Your task to perform on an android device: uninstall "Adobe Acrobat Reader" Image 0: 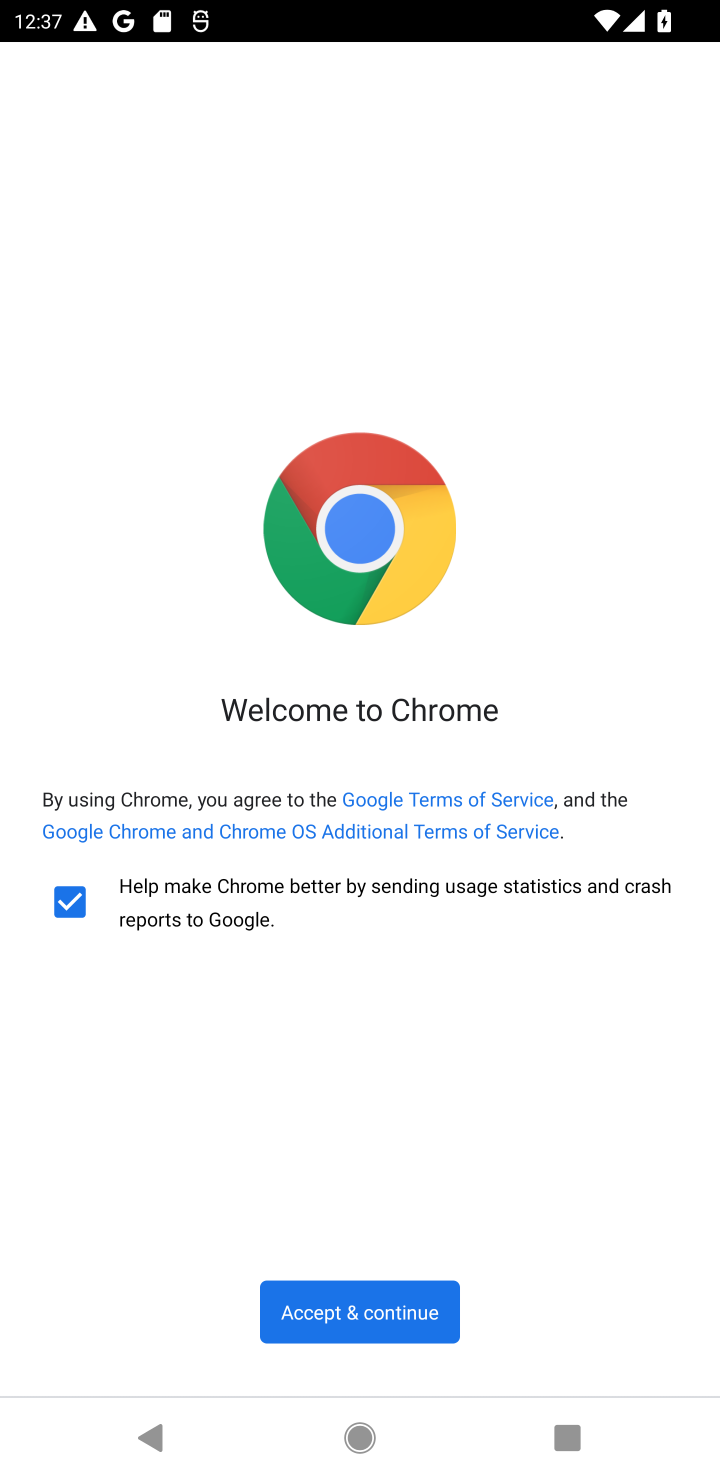
Step 0: press home button
Your task to perform on an android device: uninstall "Adobe Acrobat Reader" Image 1: 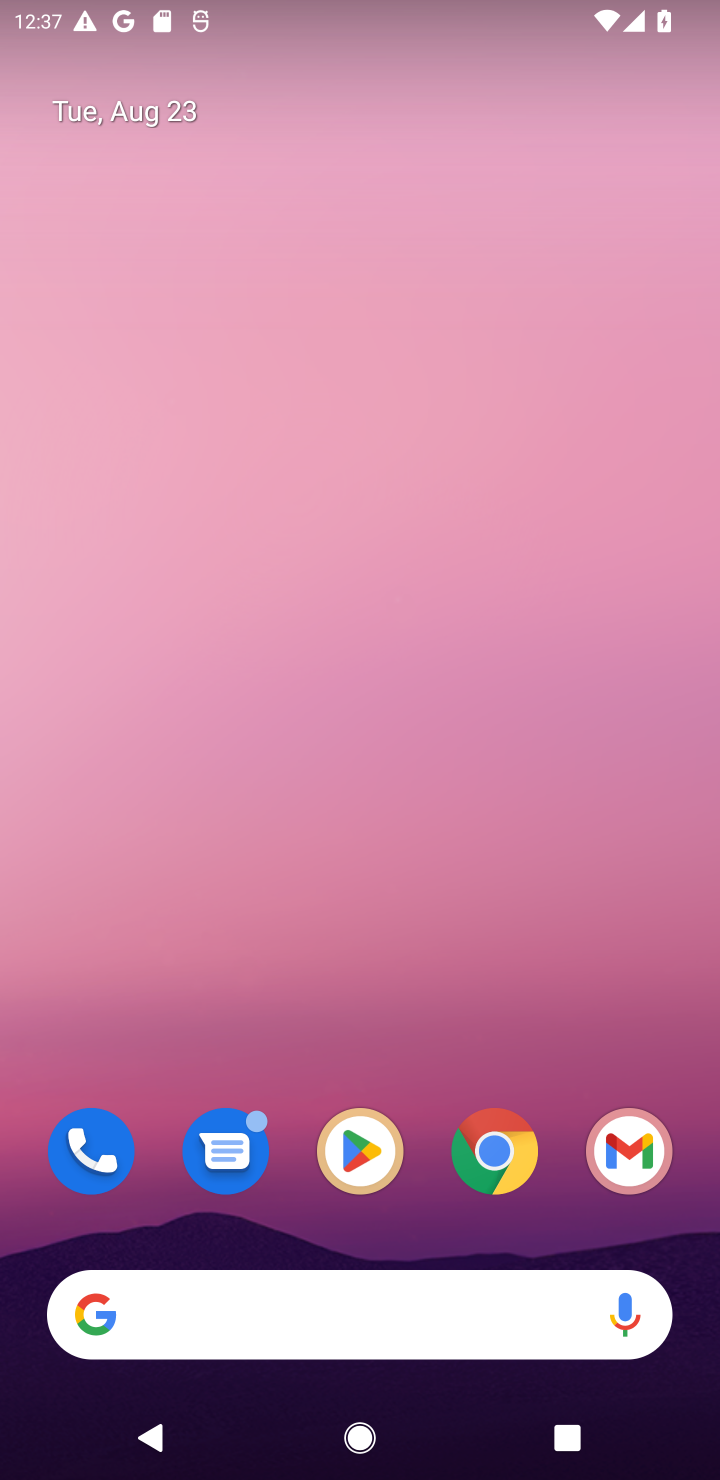
Step 1: click (323, 1137)
Your task to perform on an android device: uninstall "Adobe Acrobat Reader" Image 2: 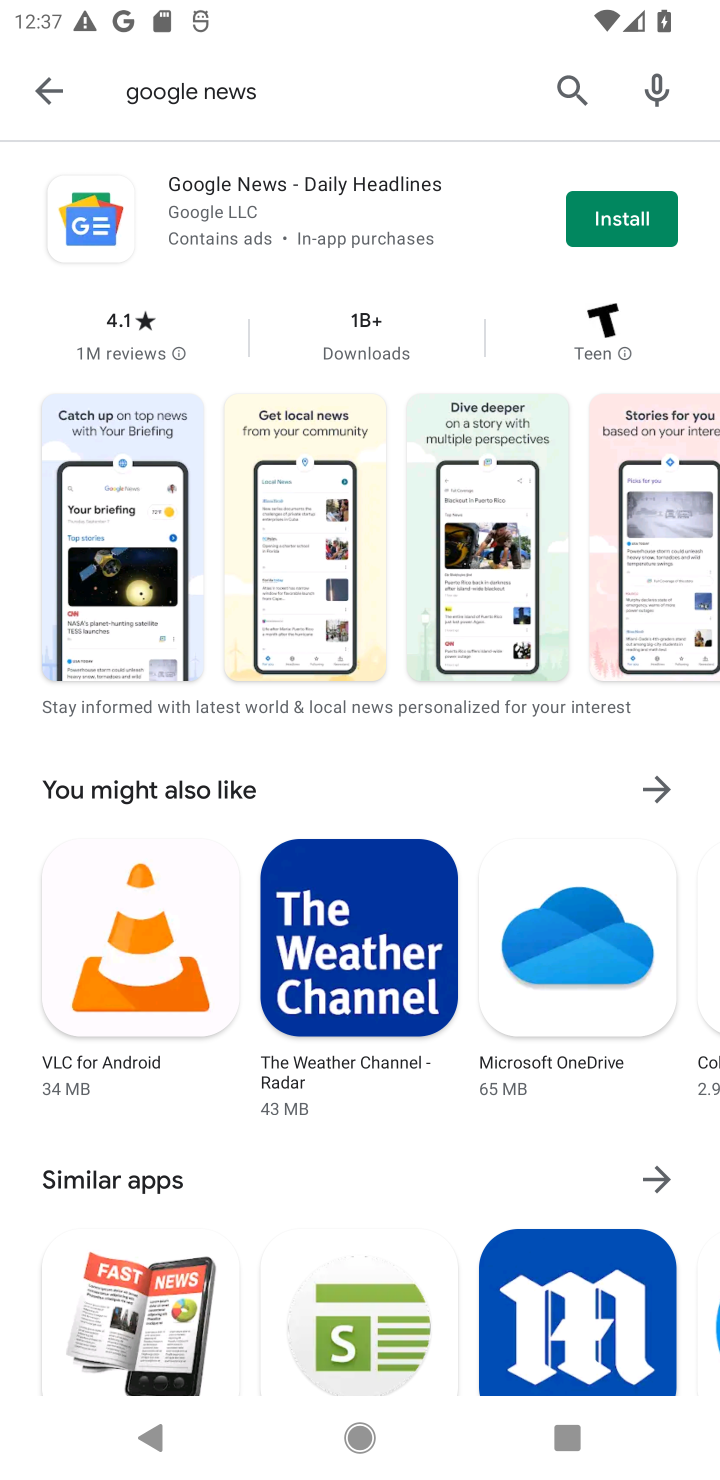
Step 2: click (574, 88)
Your task to perform on an android device: uninstall "Adobe Acrobat Reader" Image 3: 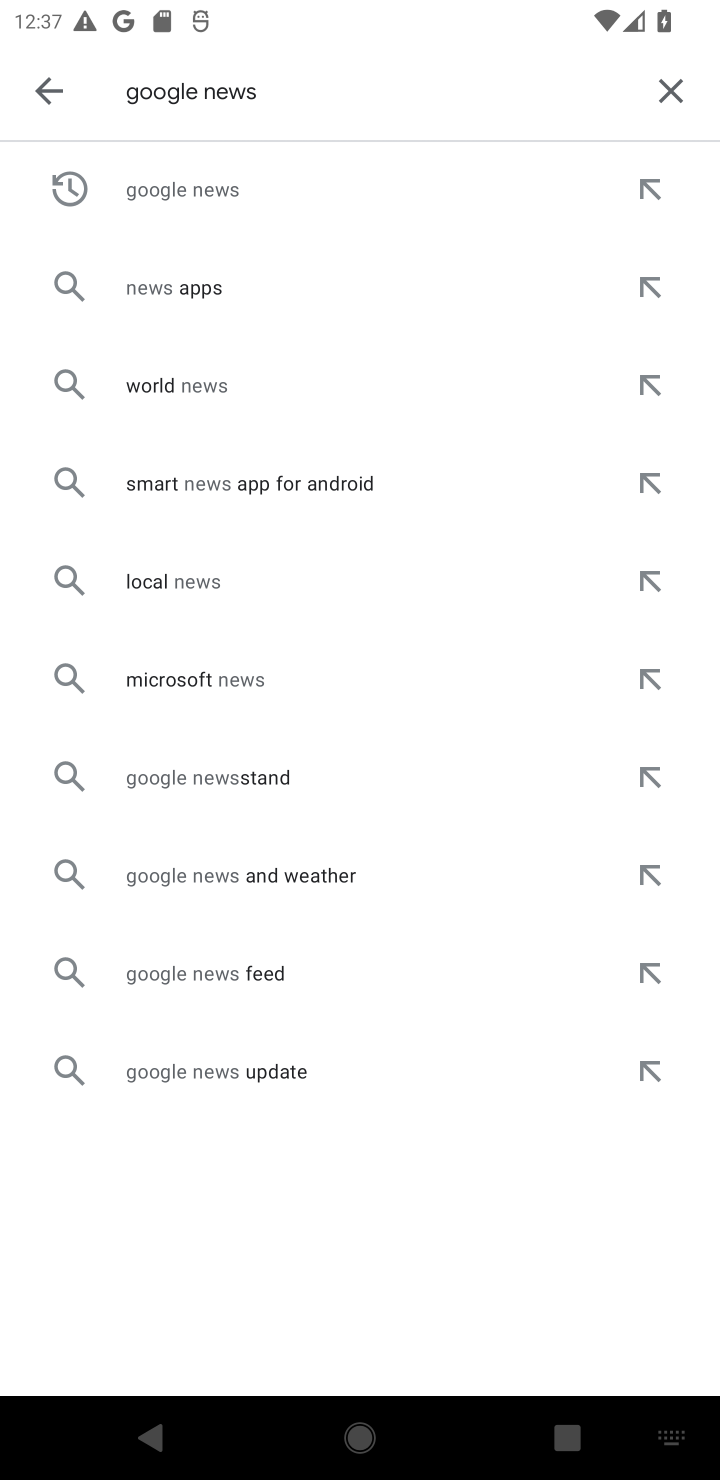
Step 3: click (677, 97)
Your task to perform on an android device: uninstall "Adobe Acrobat Reader" Image 4: 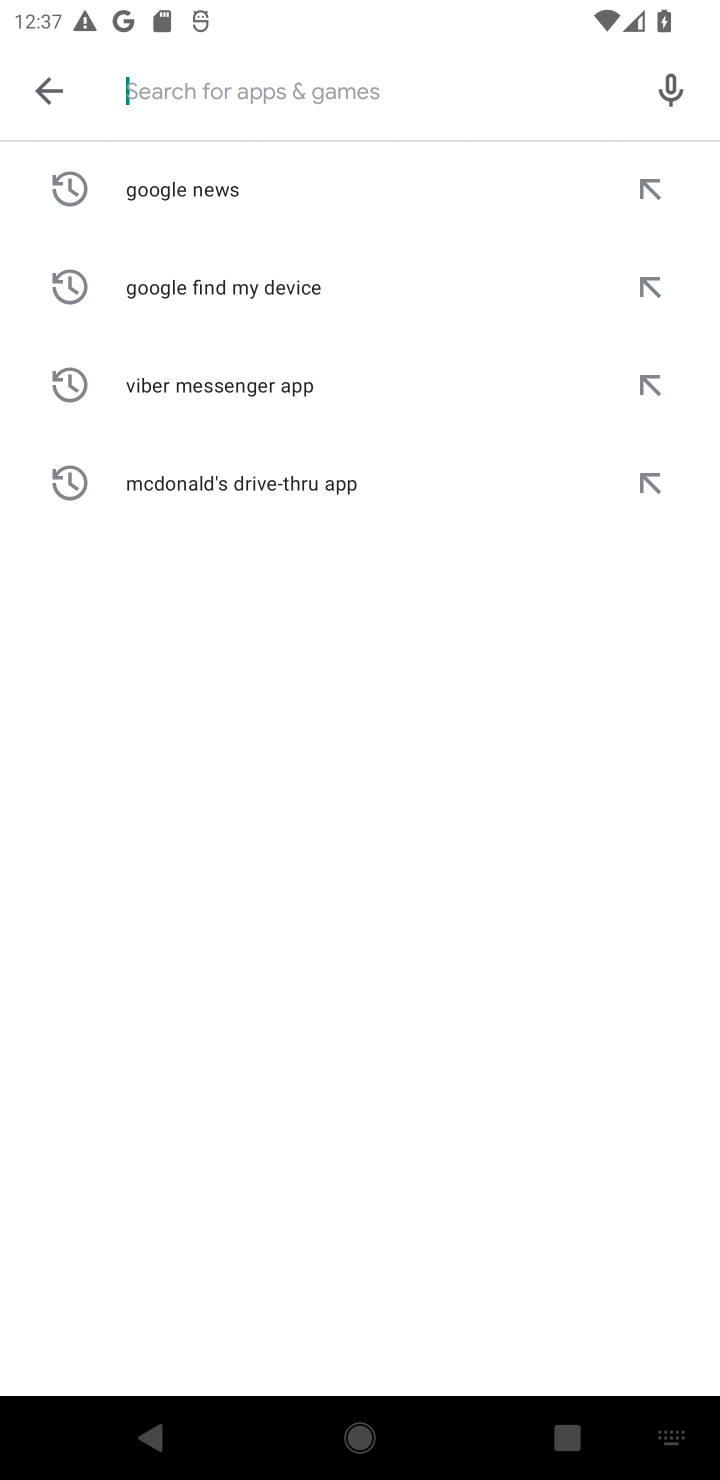
Step 4: type "Adobe Acrobat Reader"
Your task to perform on an android device: uninstall "Adobe Acrobat Reader" Image 5: 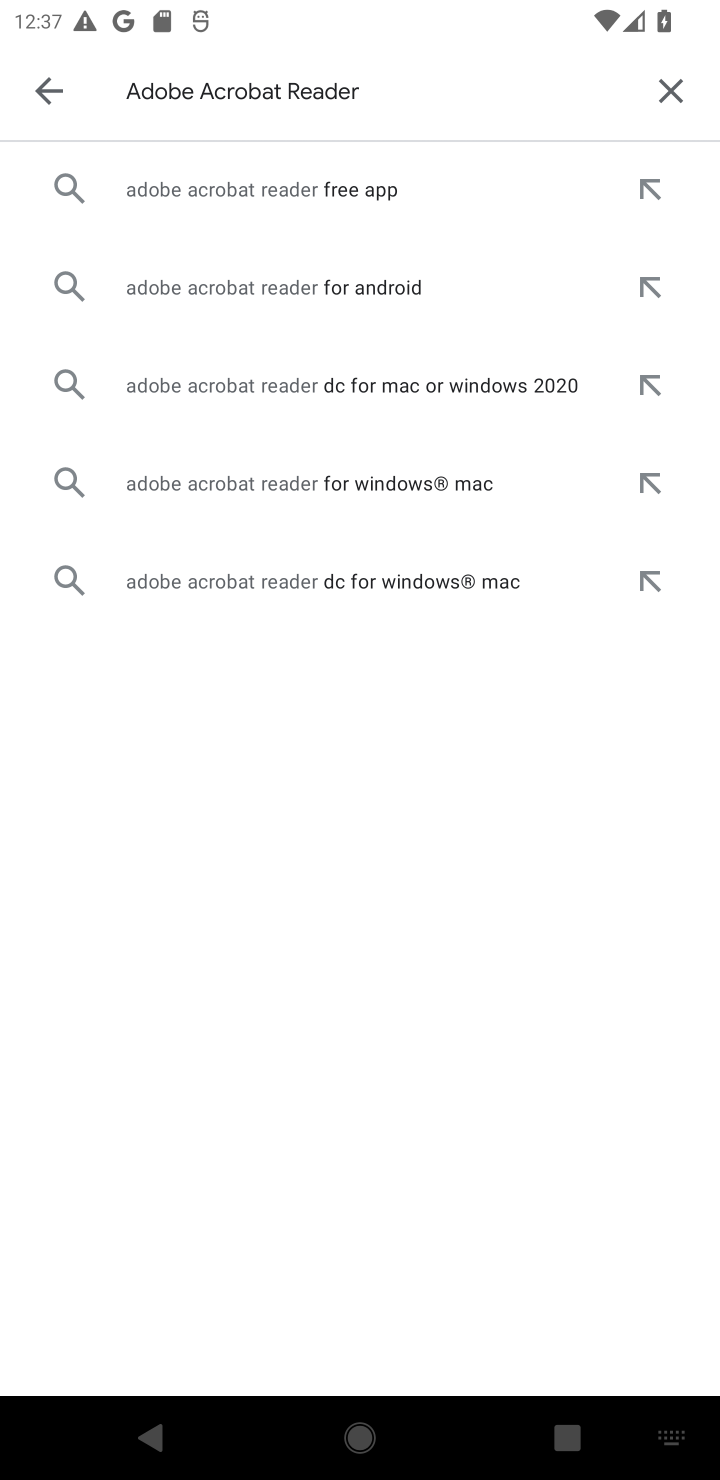
Step 5: click (427, 187)
Your task to perform on an android device: uninstall "Adobe Acrobat Reader" Image 6: 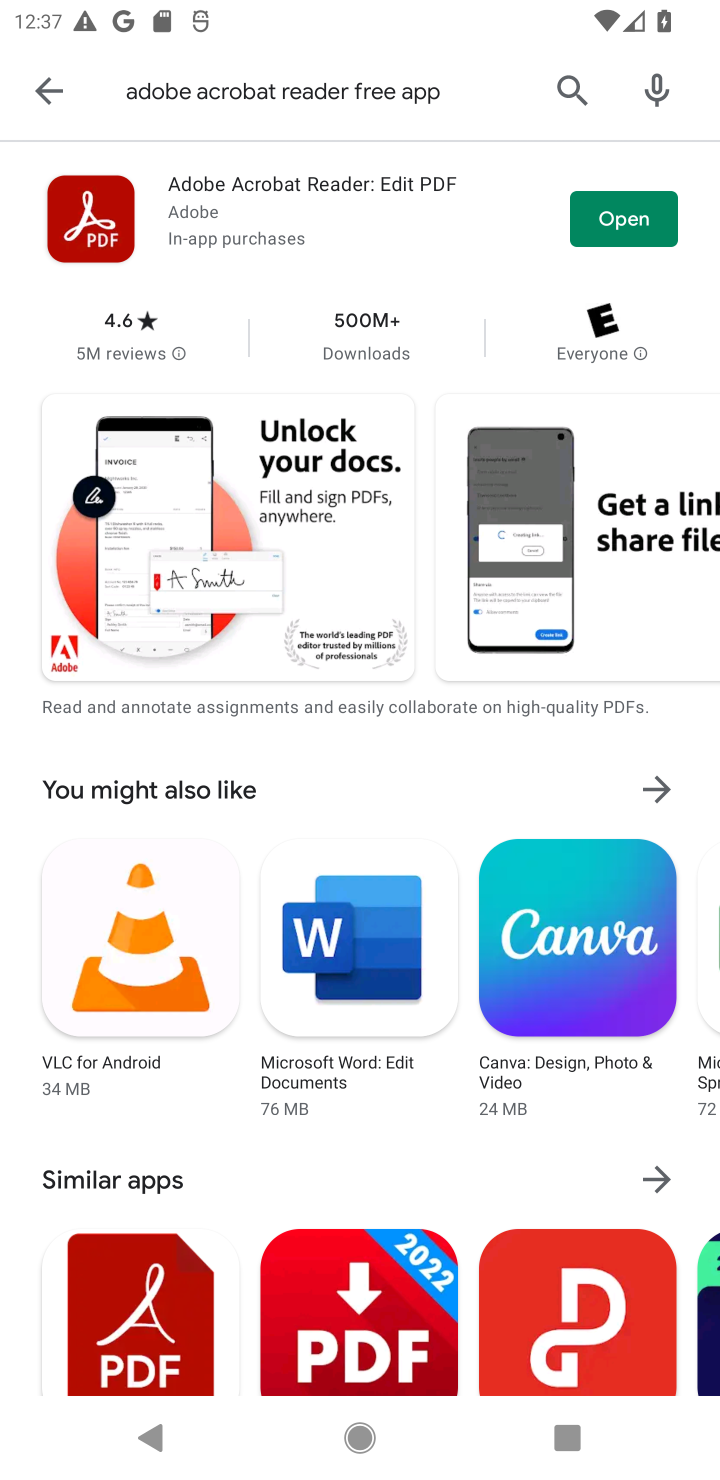
Step 6: click (308, 243)
Your task to perform on an android device: uninstall "Adobe Acrobat Reader" Image 7: 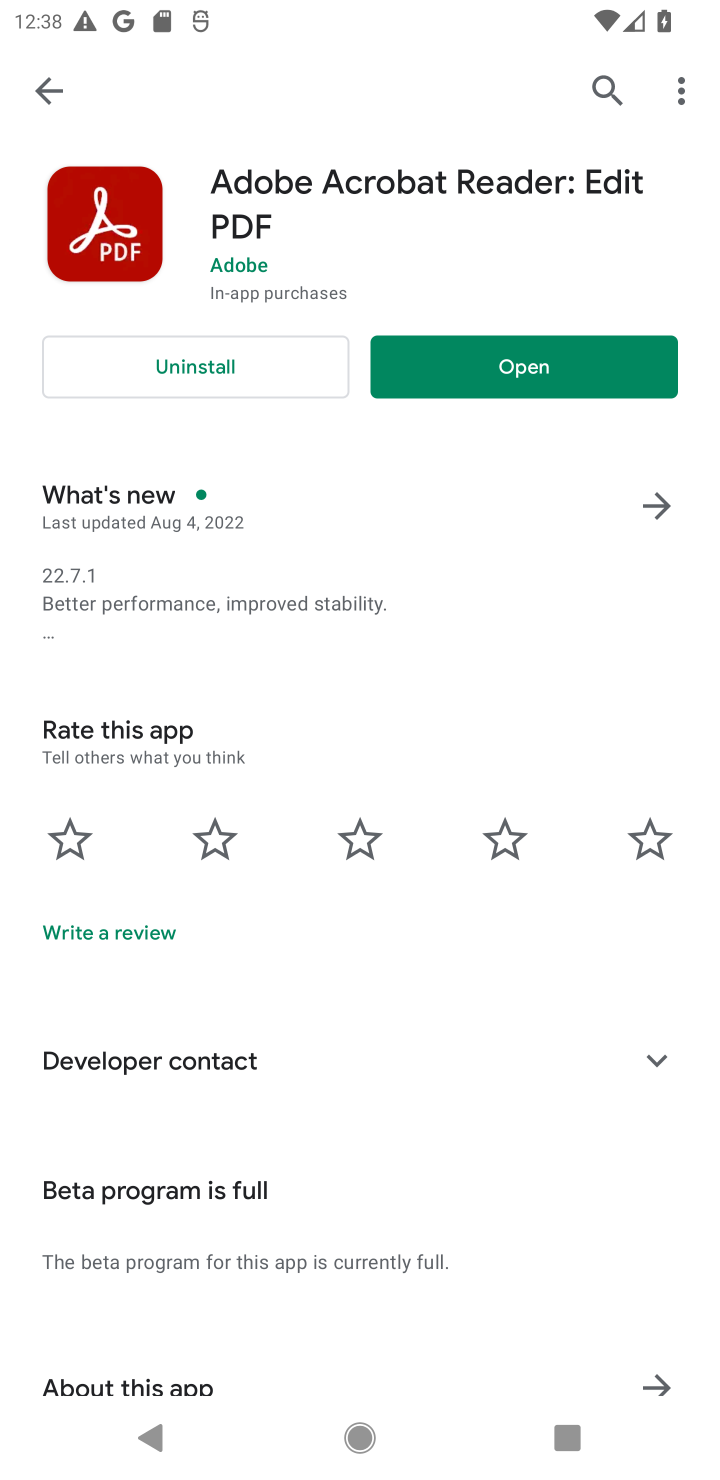
Step 7: click (225, 365)
Your task to perform on an android device: uninstall "Adobe Acrobat Reader" Image 8: 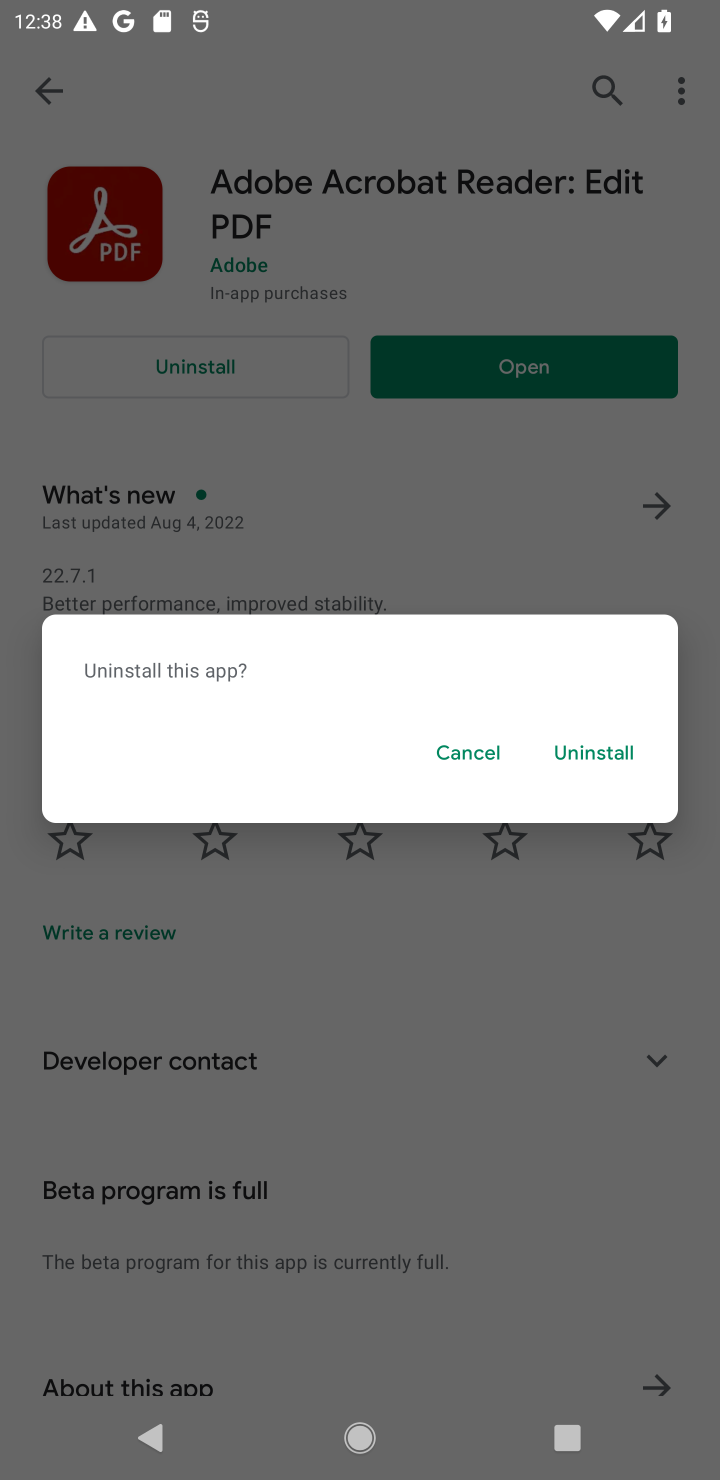
Step 8: click (608, 761)
Your task to perform on an android device: uninstall "Adobe Acrobat Reader" Image 9: 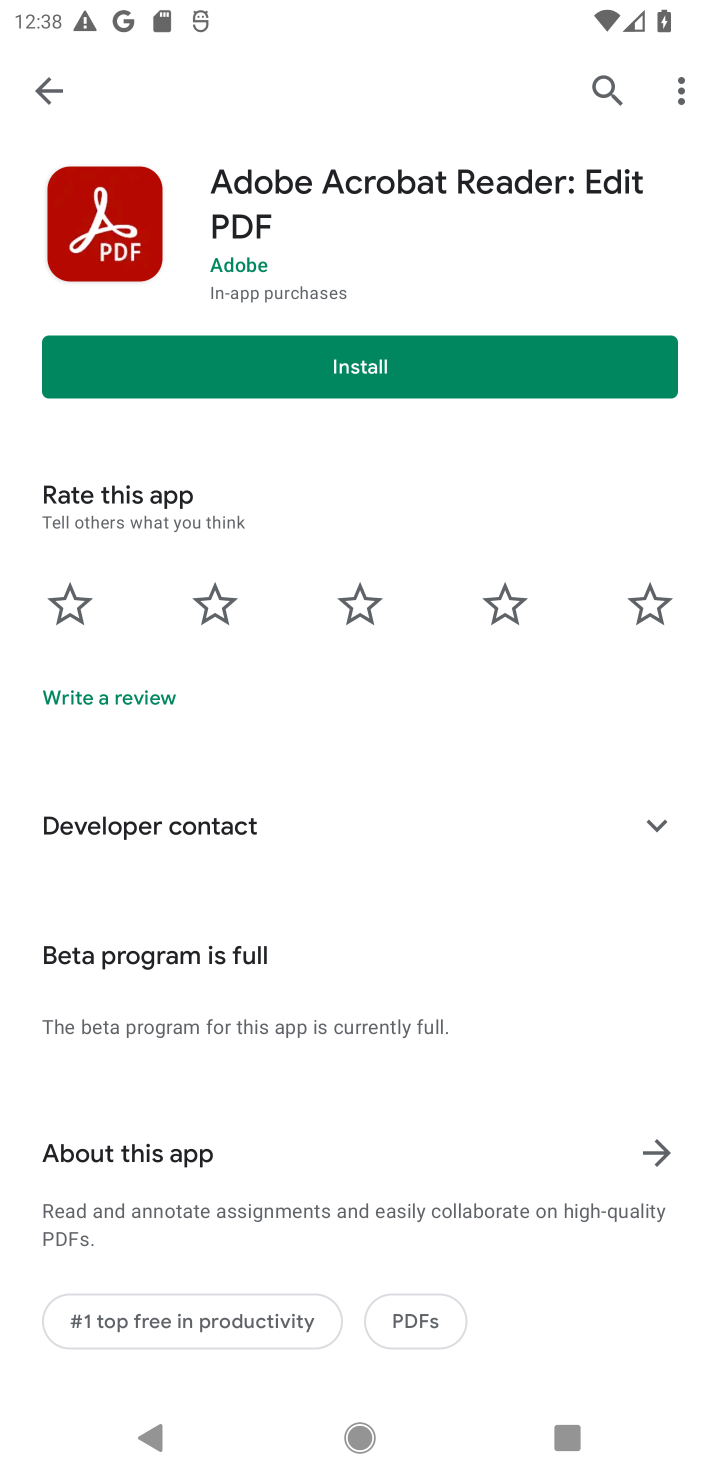
Step 9: task complete